Your task to perform on an android device: check the backup settings in the google photos Image 0: 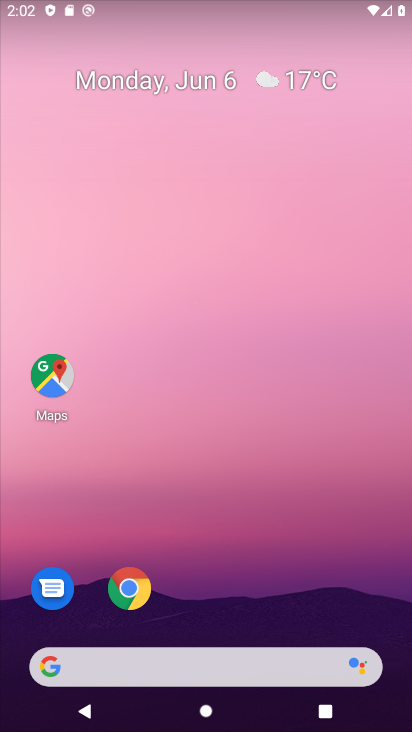
Step 0: drag from (220, 653) to (216, 89)
Your task to perform on an android device: check the backup settings in the google photos Image 1: 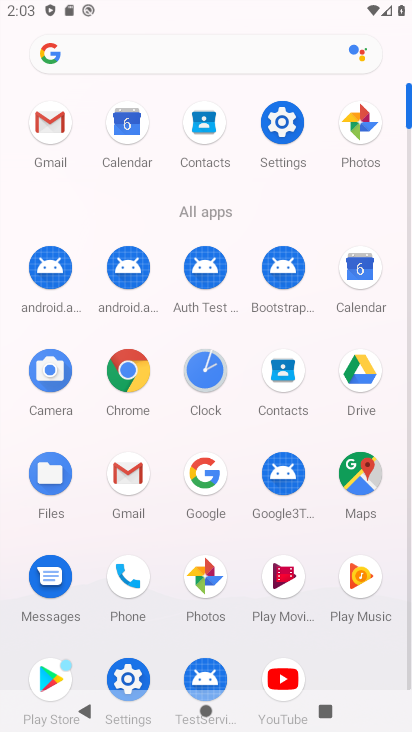
Step 1: click (225, 575)
Your task to perform on an android device: check the backup settings in the google photos Image 2: 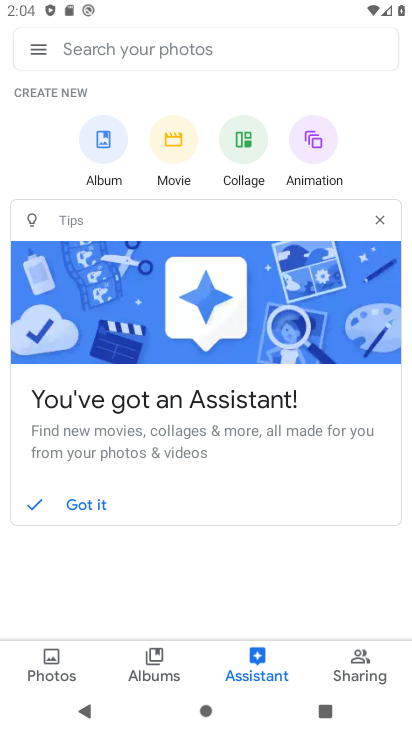
Step 2: click (35, 51)
Your task to perform on an android device: check the backup settings in the google photos Image 3: 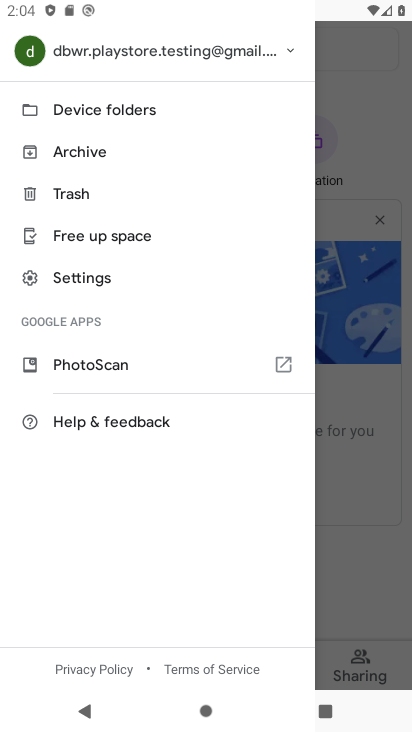
Step 3: click (98, 272)
Your task to perform on an android device: check the backup settings in the google photos Image 4: 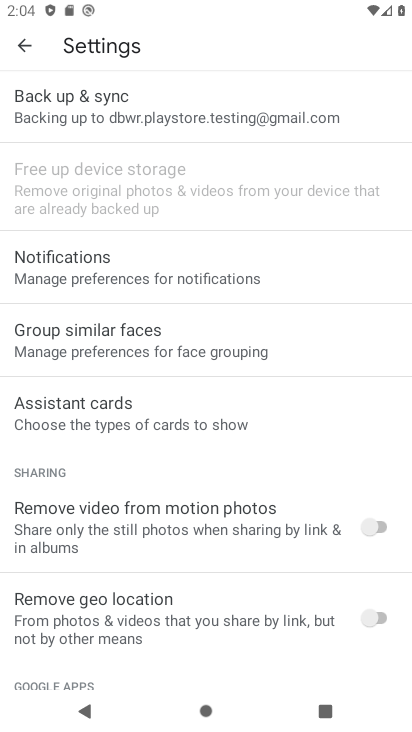
Step 4: click (81, 102)
Your task to perform on an android device: check the backup settings in the google photos Image 5: 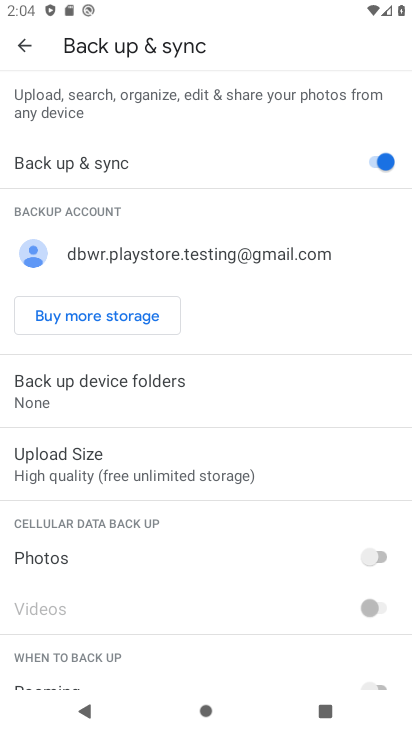
Step 5: task complete